Your task to perform on an android device: See recent photos Image 0: 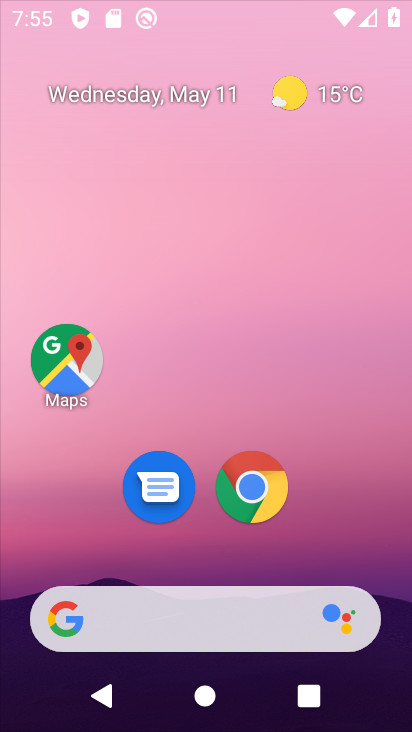
Step 0: drag from (313, 655) to (251, 274)
Your task to perform on an android device: See recent photos Image 1: 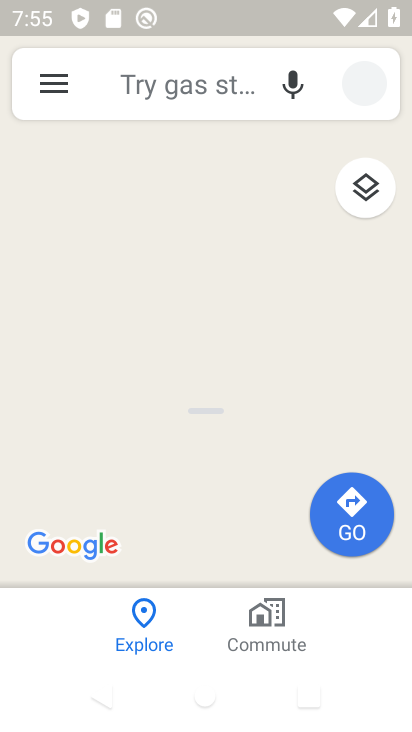
Step 1: press home button
Your task to perform on an android device: See recent photos Image 2: 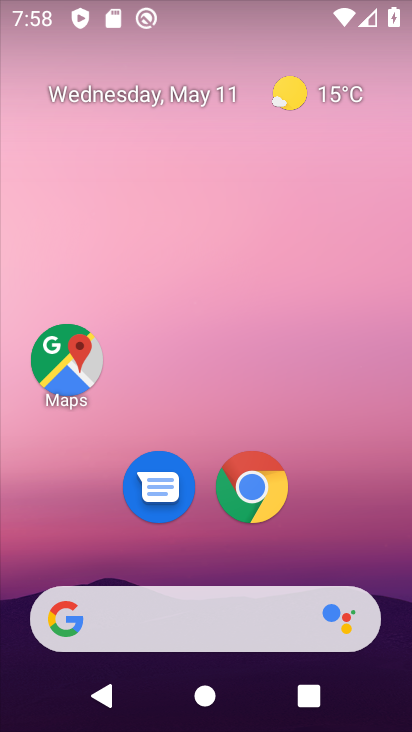
Step 2: drag from (274, 639) to (215, 263)
Your task to perform on an android device: See recent photos Image 3: 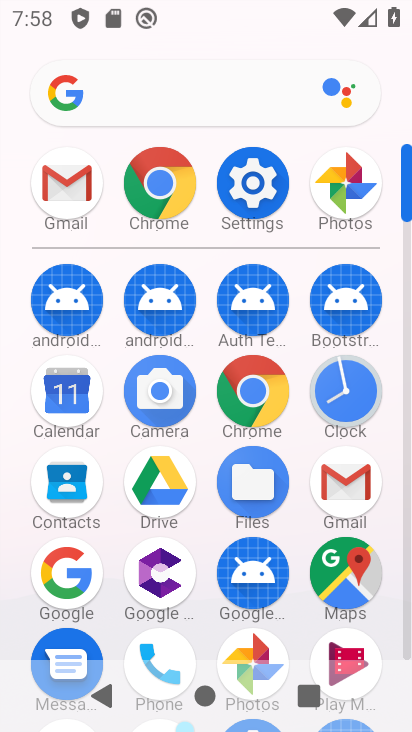
Step 3: click (254, 656)
Your task to perform on an android device: See recent photos Image 4: 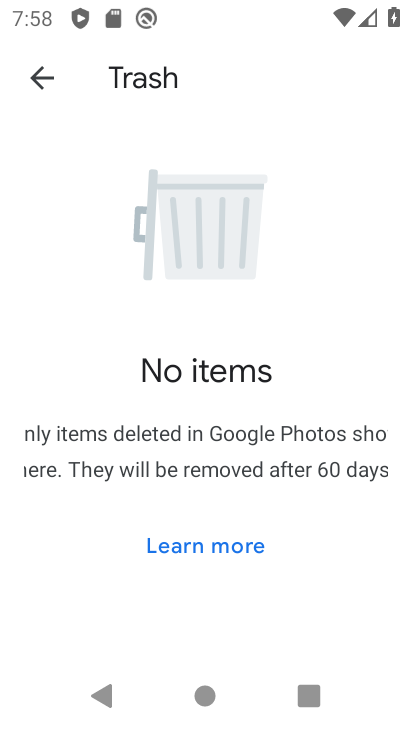
Step 4: click (46, 81)
Your task to perform on an android device: See recent photos Image 5: 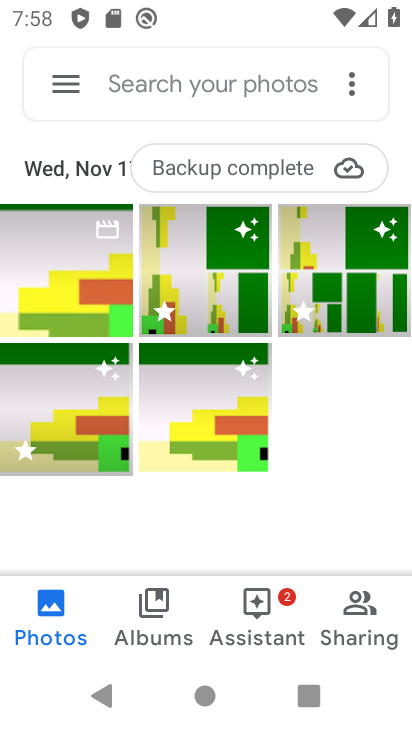
Step 5: task complete